Your task to perform on an android device: delete a single message in the gmail app Image 0: 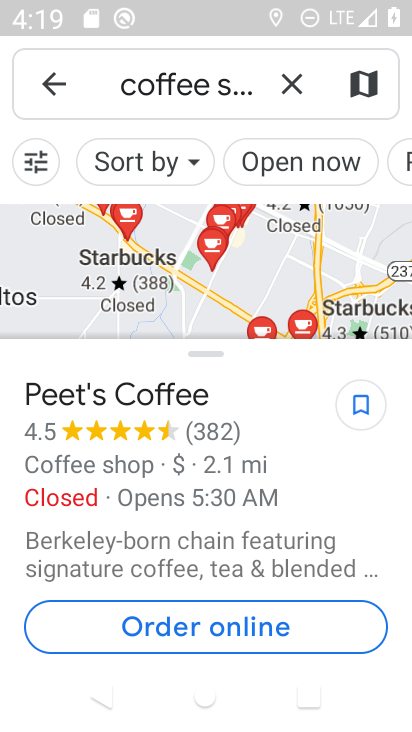
Step 0: press back button
Your task to perform on an android device: delete a single message in the gmail app Image 1: 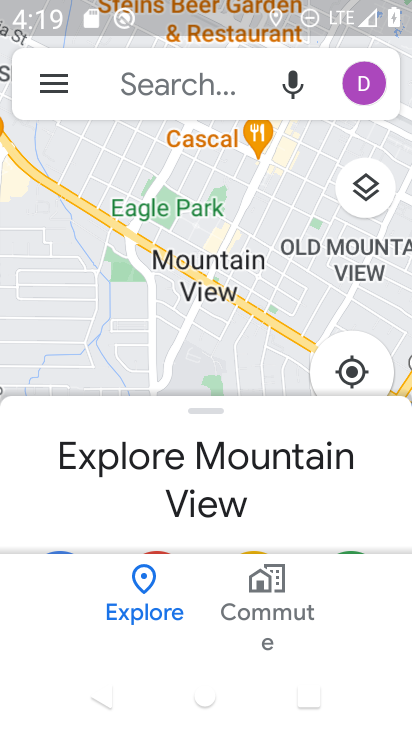
Step 1: press back button
Your task to perform on an android device: delete a single message in the gmail app Image 2: 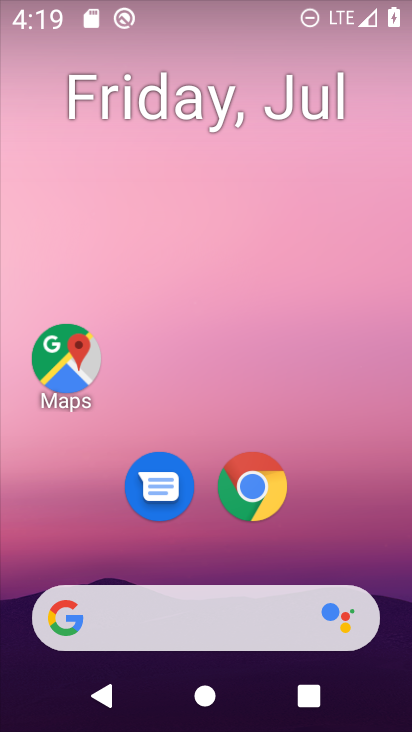
Step 2: drag from (193, 583) to (269, 3)
Your task to perform on an android device: delete a single message in the gmail app Image 3: 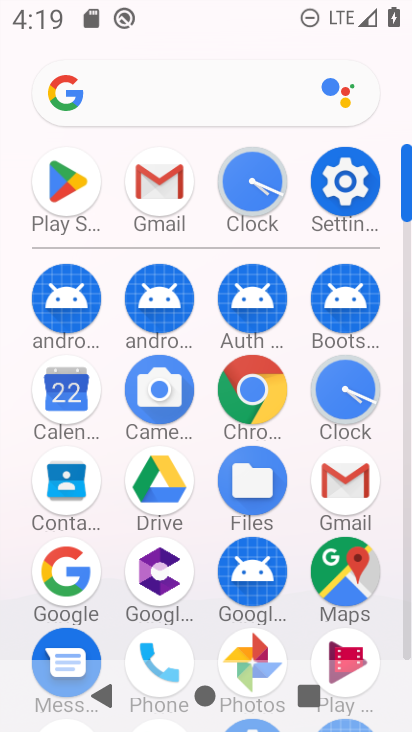
Step 3: click (161, 178)
Your task to perform on an android device: delete a single message in the gmail app Image 4: 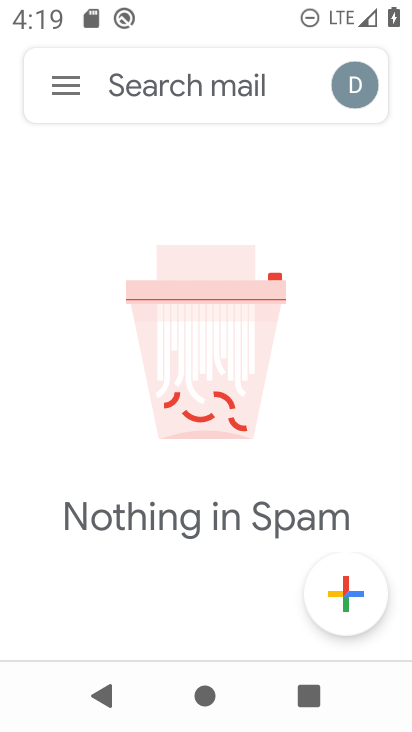
Step 4: click (52, 83)
Your task to perform on an android device: delete a single message in the gmail app Image 5: 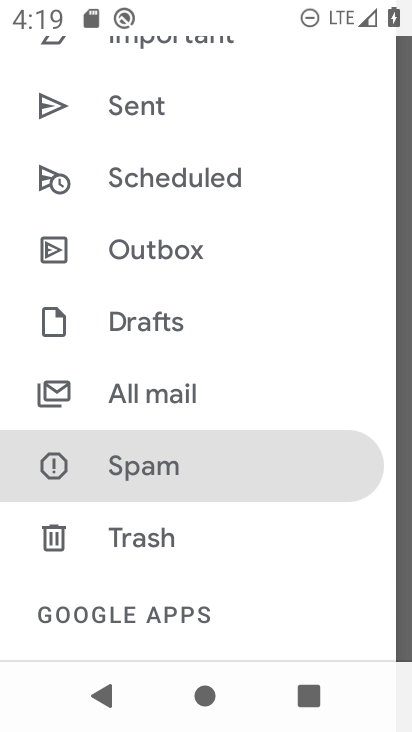
Step 5: click (115, 376)
Your task to perform on an android device: delete a single message in the gmail app Image 6: 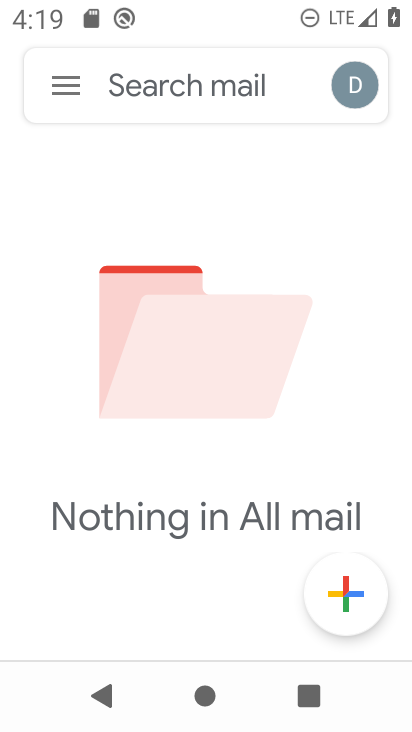
Step 6: task complete